Your task to perform on an android device: Open Yahoo.com Image 0: 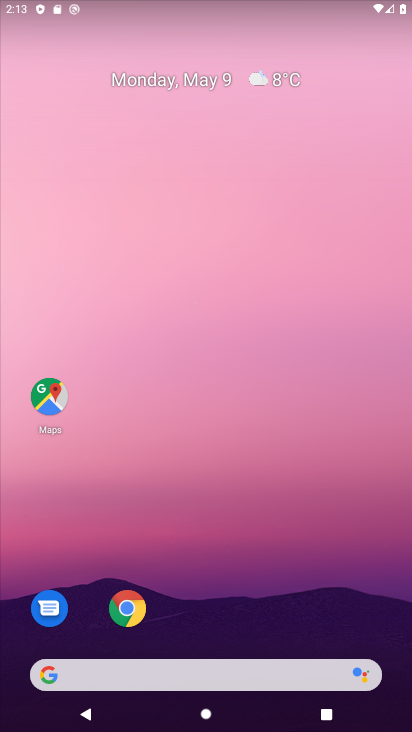
Step 0: click (126, 605)
Your task to perform on an android device: Open Yahoo.com Image 1: 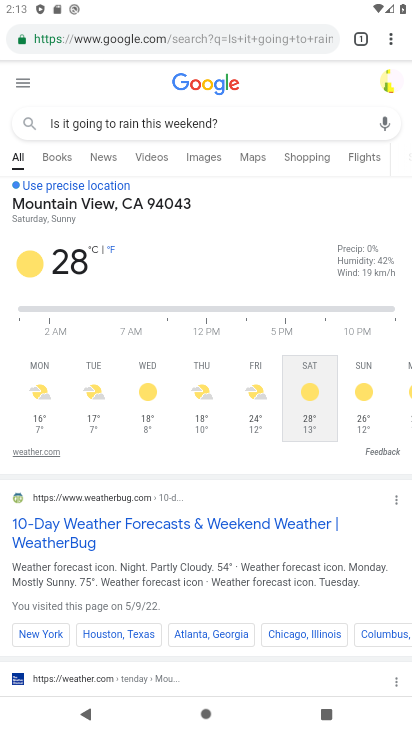
Step 1: click (169, 41)
Your task to perform on an android device: Open Yahoo.com Image 2: 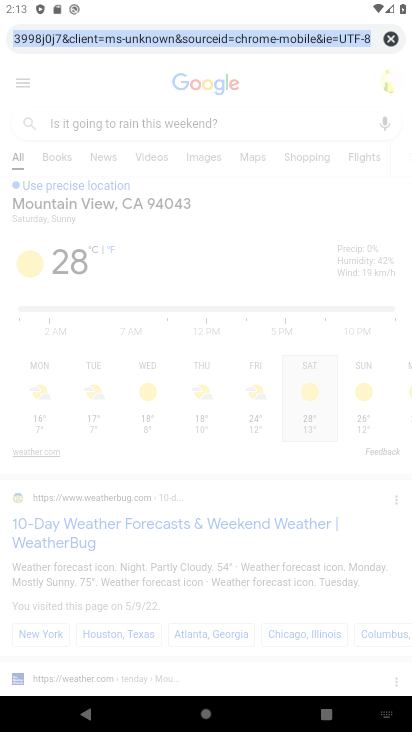
Step 2: type "yahoo.com"
Your task to perform on an android device: Open Yahoo.com Image 3: 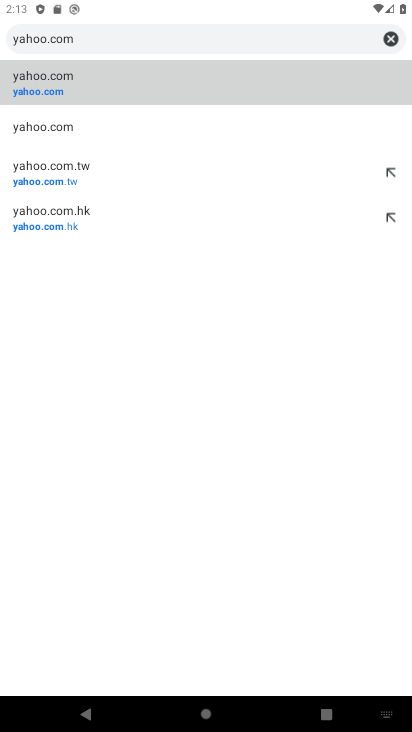
Step 3: click (63, 71)
Your task to perform on an android device: Open Yahoo.com Image 4: 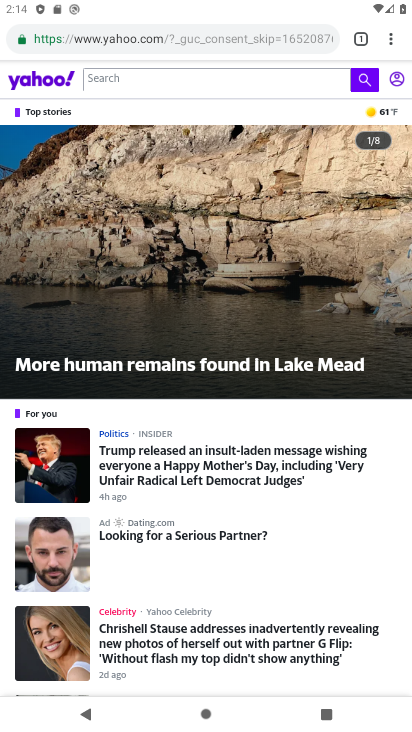
Step 4: task complete